Your task to perform on an android device: Add "dell alienware" to the cart on target Image 0: 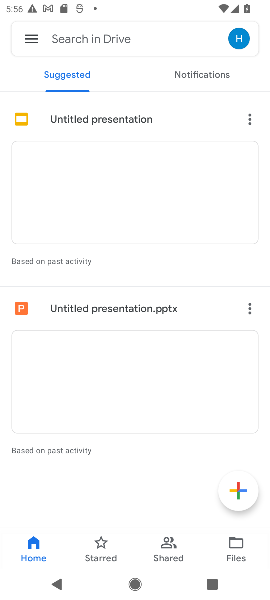
Step 0: press home button
Your task to perform on an android device: Add "dell alienware" to the cart on target Image 1: 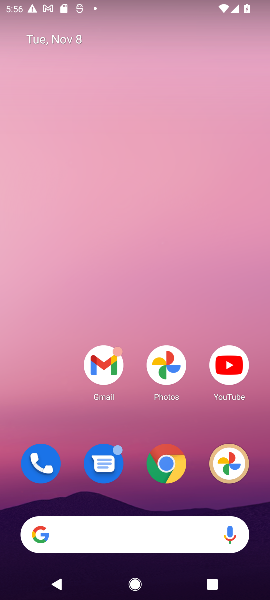
Step 1: click (178, 460)
Your task to perform on an android device: Add "dell alienware" to the cart on target Image 2: 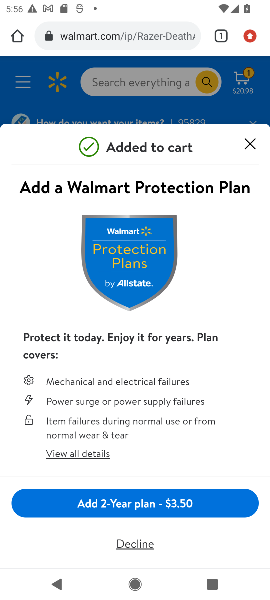
Step 2: click (113, 39)
Your task to perform on an android device: Add "dell alienware" to the cart on target Image 3: 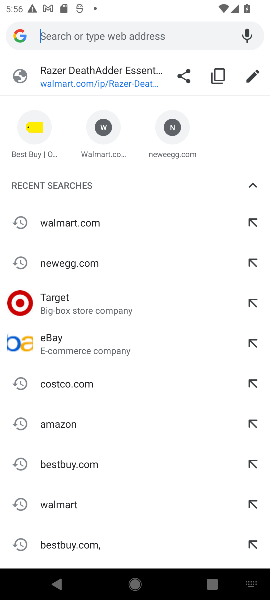
Step 3: click (70, 305)
Your task to perform on an android device: Add "dell alienware" to the cart on target Image 4: 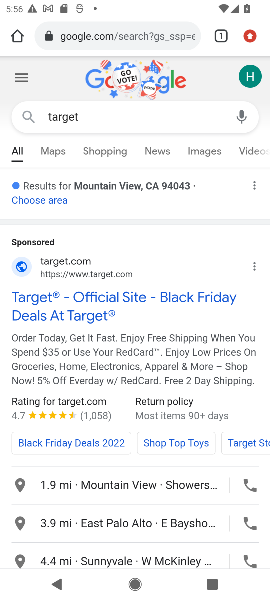
Step 4: click (70, 305)
Your task to perform on an android device: Add "dell alienware" to the cart on target Image 5: 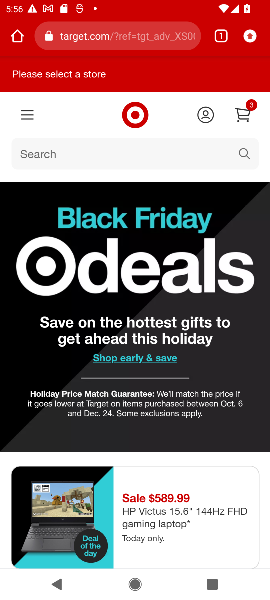
Step 5: click (110, 158)
Your task to perform on an android device: Add "dell alienware" to the cart on target Image 6: 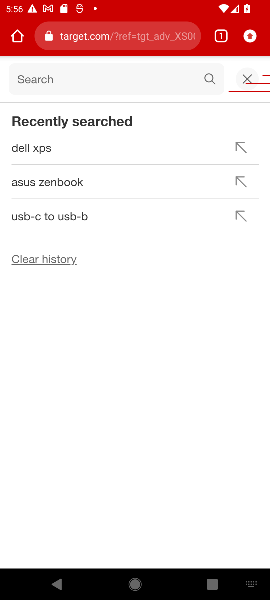
Step 6: type "deli alienaware"
Your task to perform on an android device: Add "dell alienware" to the cart on target Image 7: 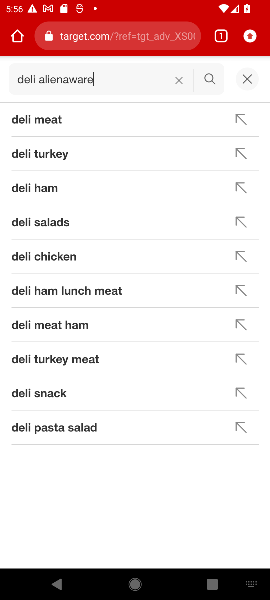
Step 7: click (207, 85)
Your task to perform on an android device: Add "dell alienware" to the cart on target Image 8: 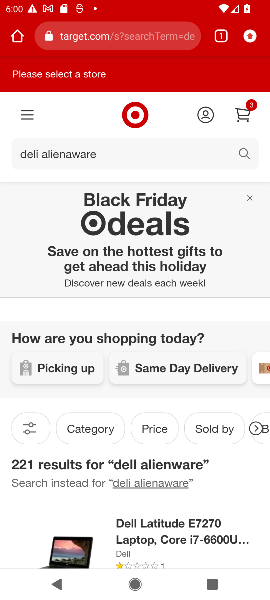
Step 8: task complete